Your task to perform on an android device: toggle improve location accuracy Image 0: 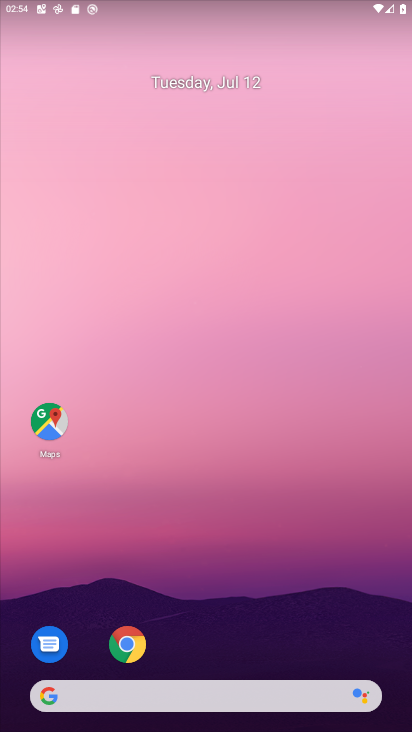
Step 0: drag from (213, 665) to (178, 11)
Your task to perform on an android device: toggle improve location accuracy Image 1: 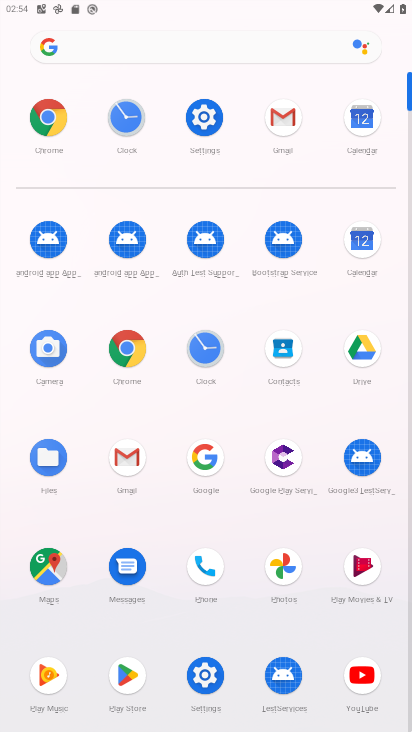
Step 1: click (202, 127)
Your task to perform on an android device: toggle improve location accuracy Image 2: 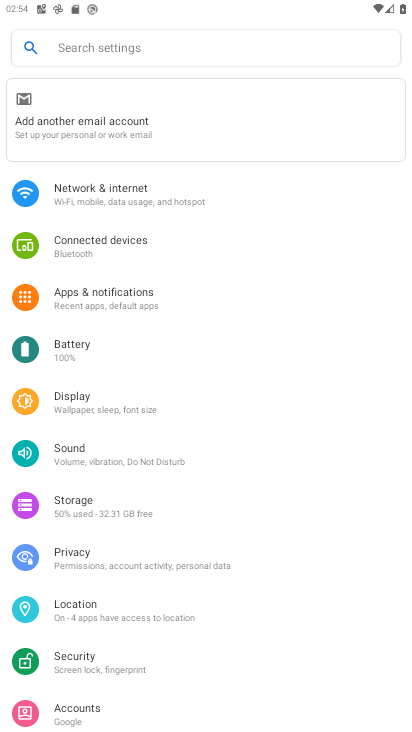
Step 2: click (93, 617)
Your task to perform on an android device: toggle improve location accuracy Image 3: 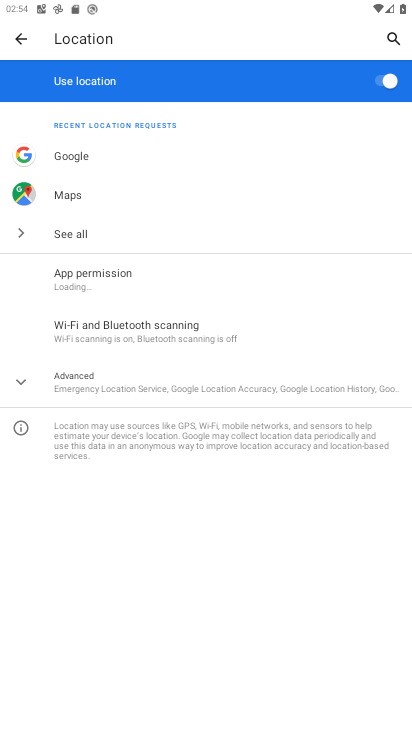
Step 3: click (109, 386)
Your task to perform on an android device: toggle improve location accuracy Image 4: 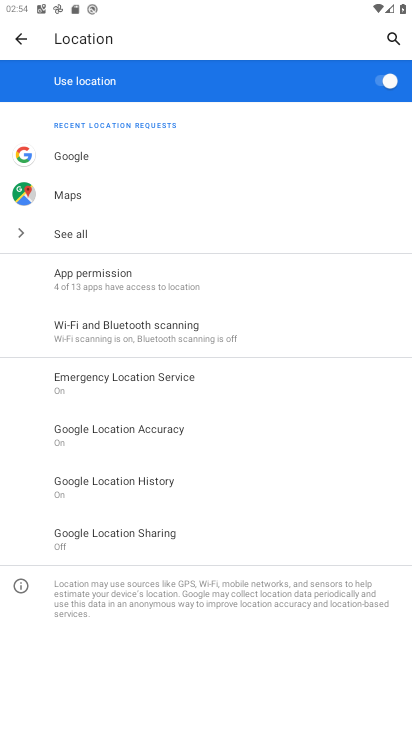
Step 4: click (131, 422)
Your task to perform on an android device: toggle improve location accuracy Image 5: 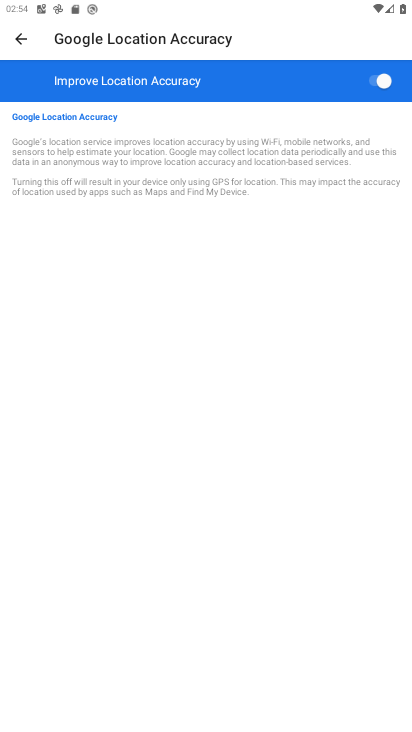
Step 5: click (373, 73)
Your task to perform on an android device: toggle improve location accuracy Image 6: 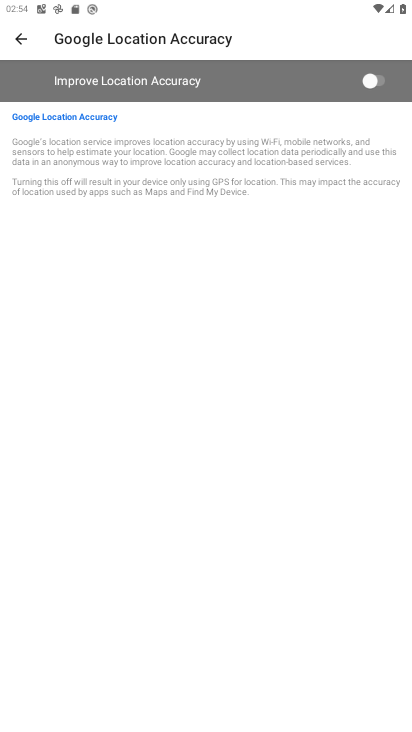
Step 6: task complete